Your task to perform on an android device: Open calendar and show me the fourth week of next month Image 0: 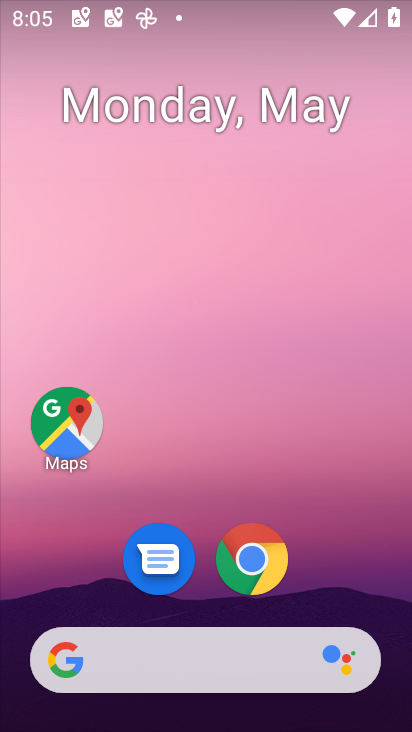
Step 0: drag from (388, 616) to (305, 81)
Your task to perform on an android device: Open calendar and show me the fourth week of next month Image 1: 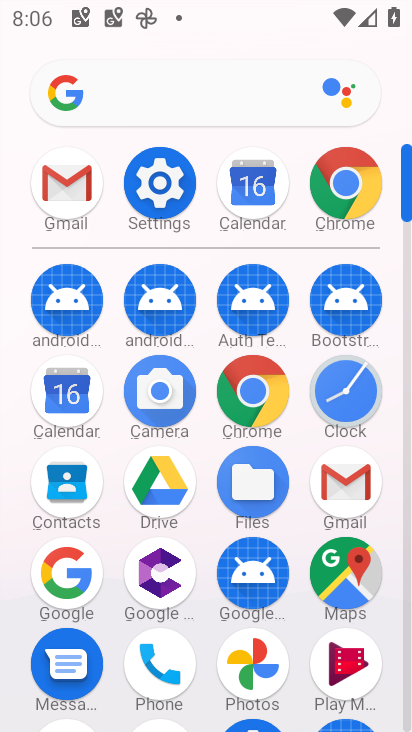
Step 1: click (67, 397)
Your task to perform on an android device: Open calendar and show me the fourth week of next month Image 2: 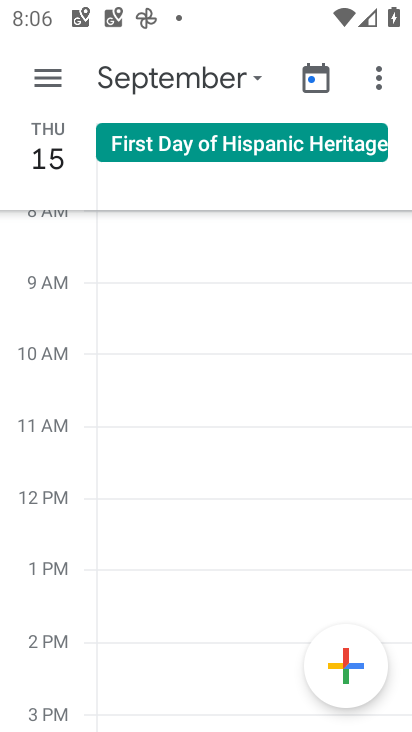
Step 2: click (139, 85)
Your task to perform on an android device: Open calendar and show me the fourth week of next month Image 3: 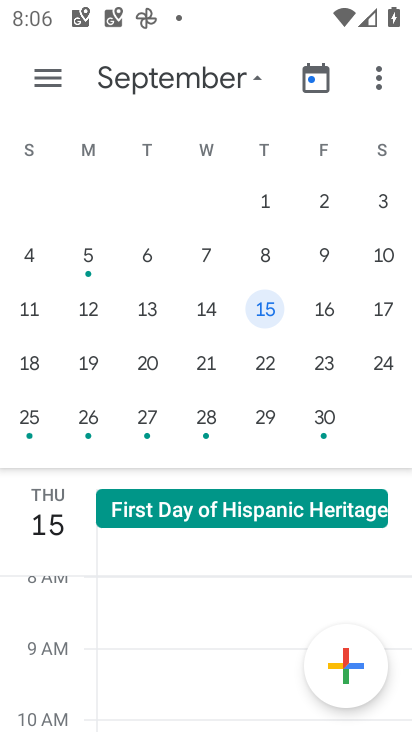
Step 3: drag from (333, 347) to (50, 333)
Your task to perform on an android device: Open calendar and show me the fourth week of next month Image 4: 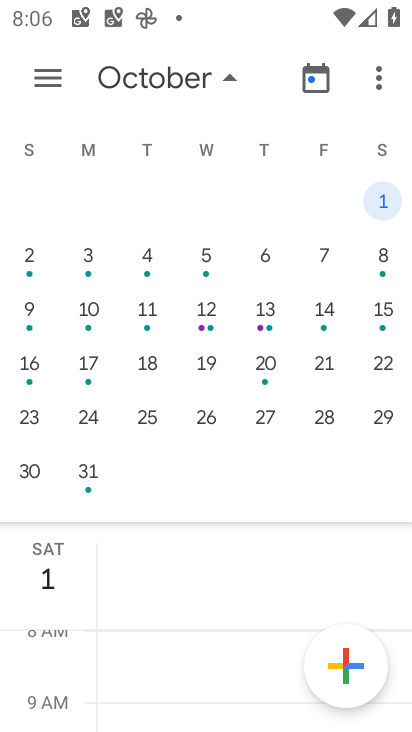
Step 4: click (260, 416)
Your task to perform on an android device: Open calendar and show me the fourth week of next month Image 5: 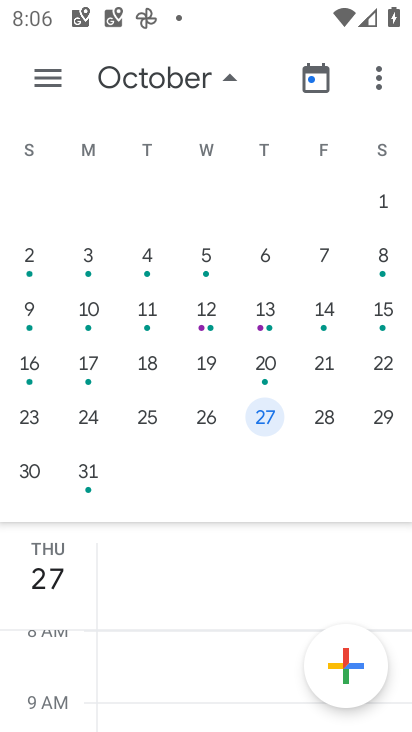
Step 5: task complete